Your task to perform on an android device: Open Google Maps Image 0: 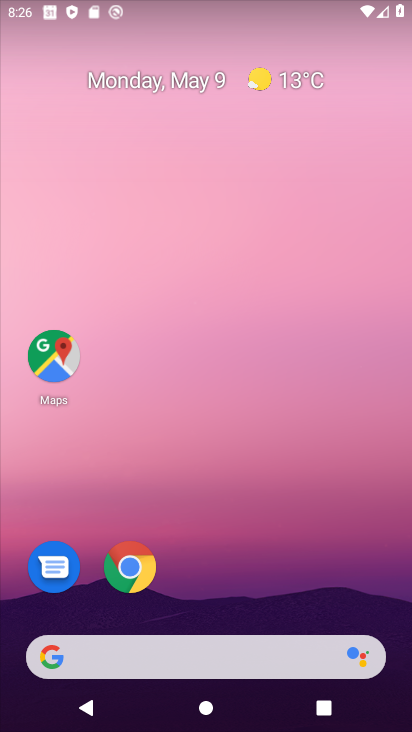
Step 0: click (38, 342)
Your task to perform on an android device: Open Google Maps Image 1: 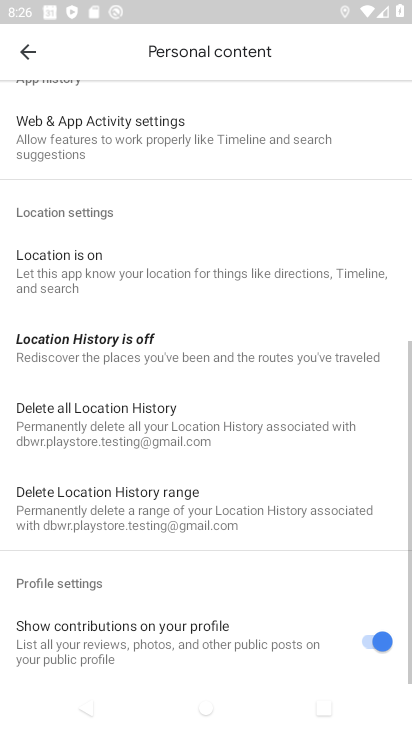
Step 1: click (27, 48)
Your task to perform on an android device: Open Google Maps Image 2: 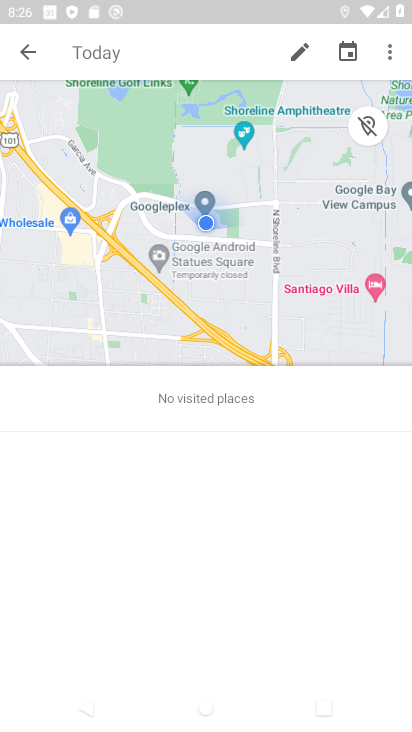
Step 2: click (29, 47)
Your task to perform on an android device: Open Google Maps Image 3: 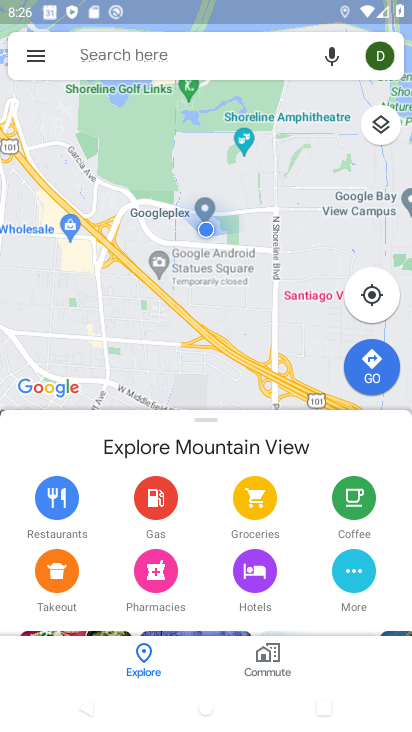
Step 3: click (198, 55)
Your task to perform on an android device: Open Google Maps Image 4: 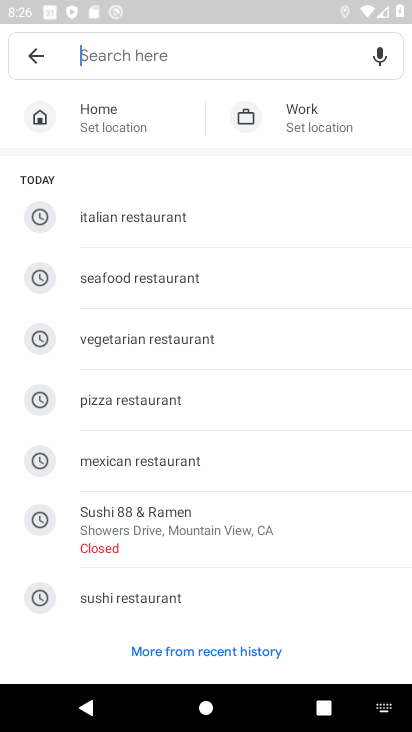
Step 4: click (29, 46)
Your task to perform on an android device: Open Google Maps Image 5: 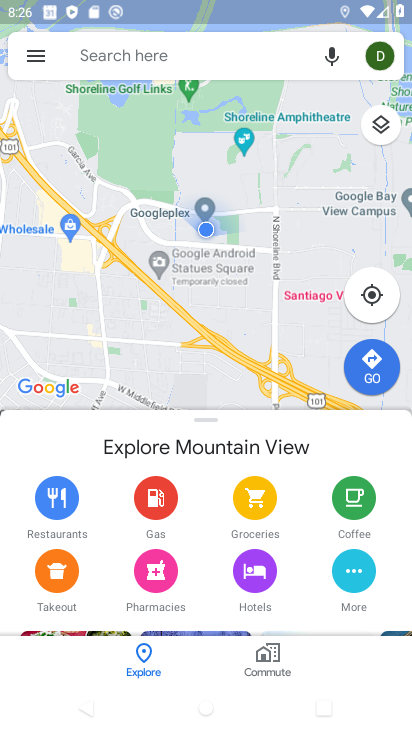
Step 5: task complete